Your task to perform on an android device: Open network settings Image 0: 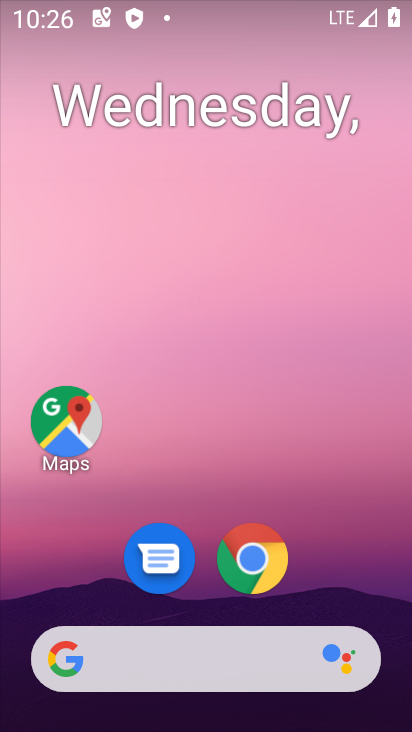
Step 0: drag from (67, 471) to (210, 205)
Your task to perform on an android device: Open network settings Image 1: 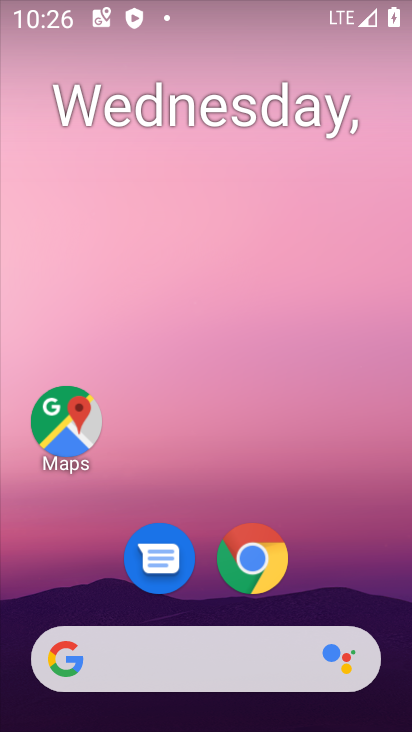
Step 1: drag from (55, 522) to (236, 119)
Your task to perform on an android device: Open network settings Image 2: 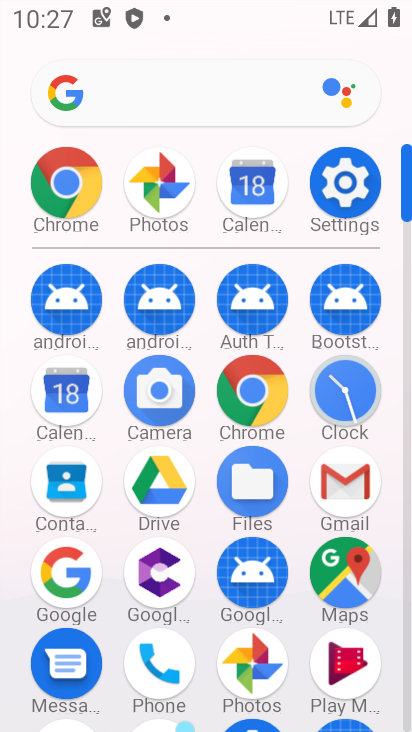
Step 2: click (340, 181)
Your task to perform on an android device: Open network settings Image 3: 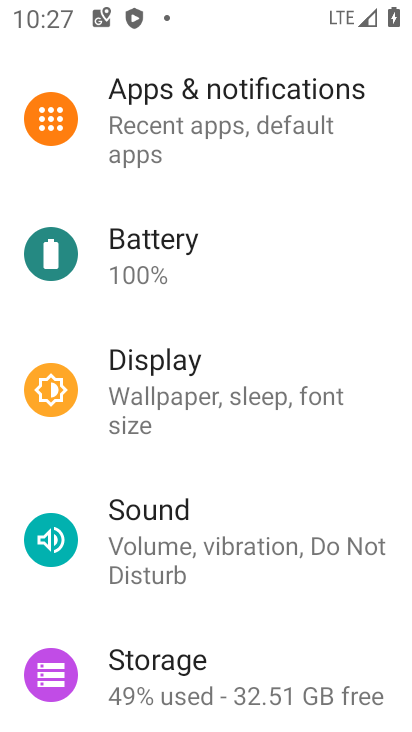
Step 3: drag from (215, 115) to (165, 617)
Your task to perform on an android device: Open network settings Image 4: 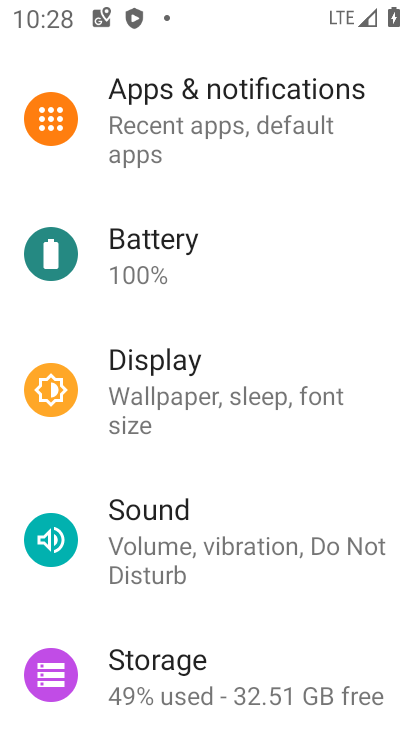
Step 4: drag from (278, 69) to (260, 545)
Your task to perform on an android device: Open network settings Image 5: 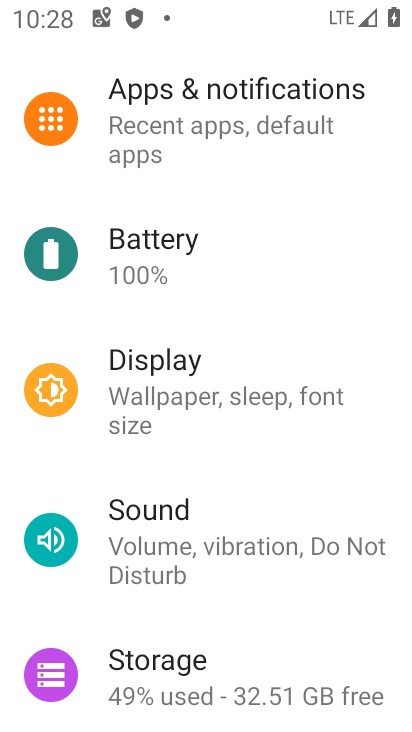
Step 5: drag from (189, 203) to (145, 614)
Your task to perform on an android device: Open network settings Image 6: 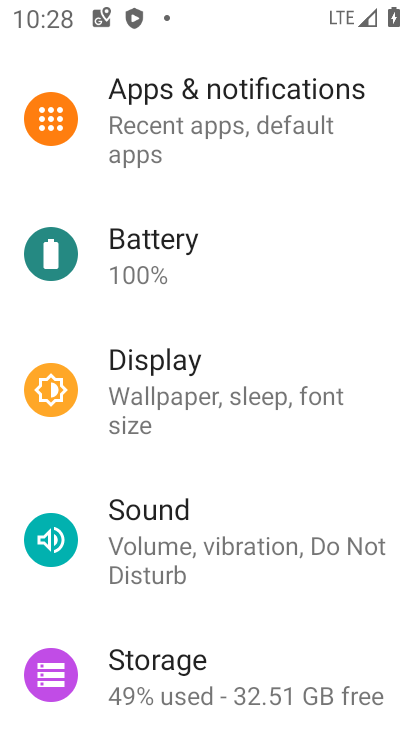
Step 6: drag from (159, 96) to (135, 511)
Your task to perform on an android device: Open network settings Image 7: 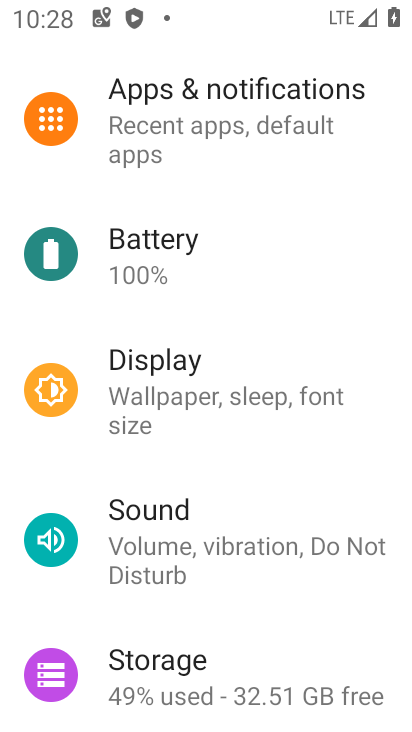
Step 7: drag from (88, 144) to (116, 631)
Your task to perform on an android device: Open network settings Image 8: 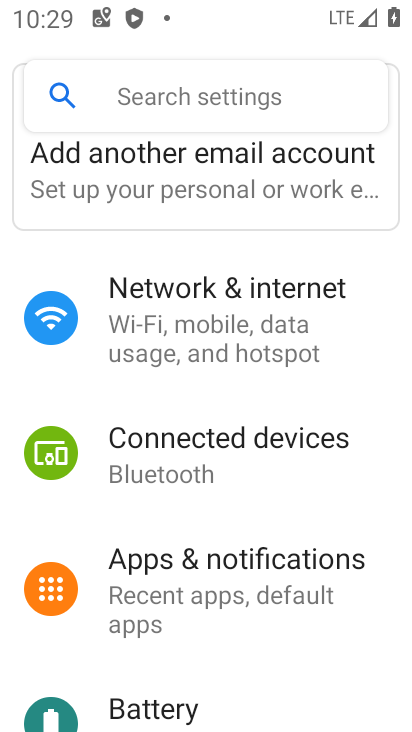
Step 8: click (204, 319)
Your task to perform on an android device: Open network settings Image 9: 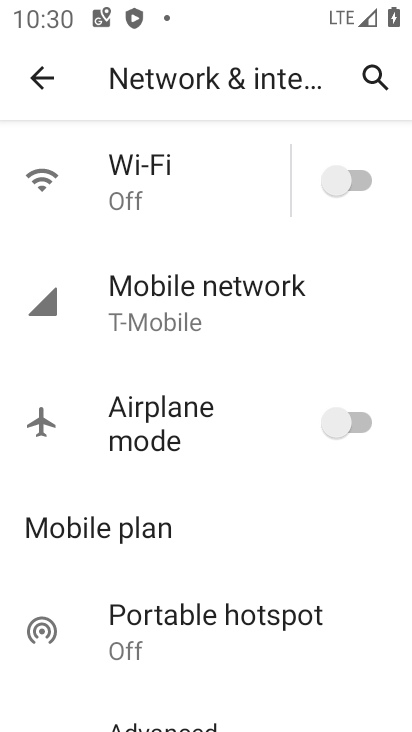
Step 9: click (224, 315)
Your task to perform on an android device: Open network settings Image 10: 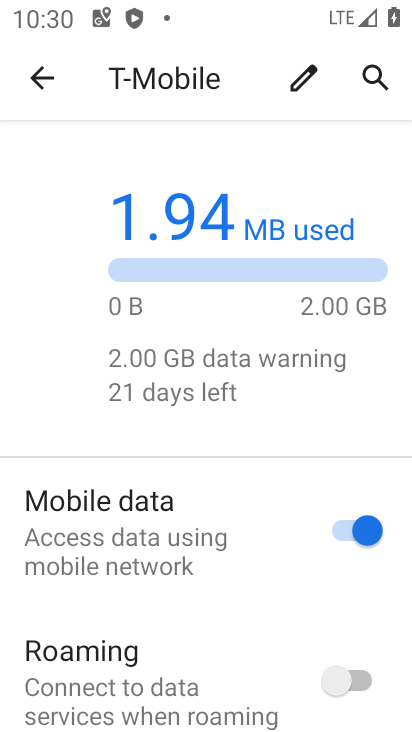
Step 10: task complete